Your task to perform on an android device: Open privacy settings Image 0: 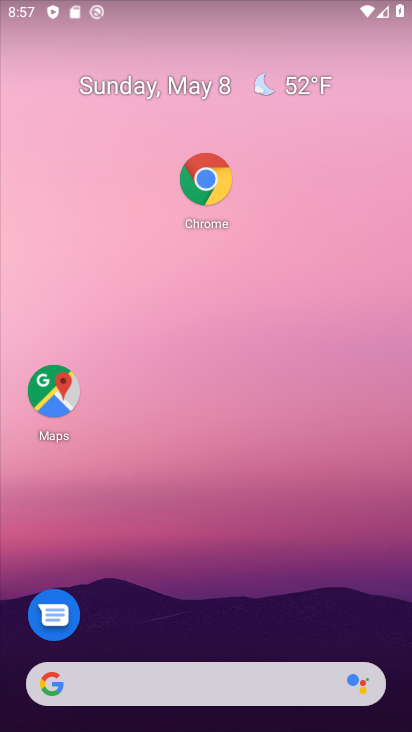
Step 0: drag from (193, 664) to (264, 236)
Your task to perform on an android device: Open privacy settings Image 1: 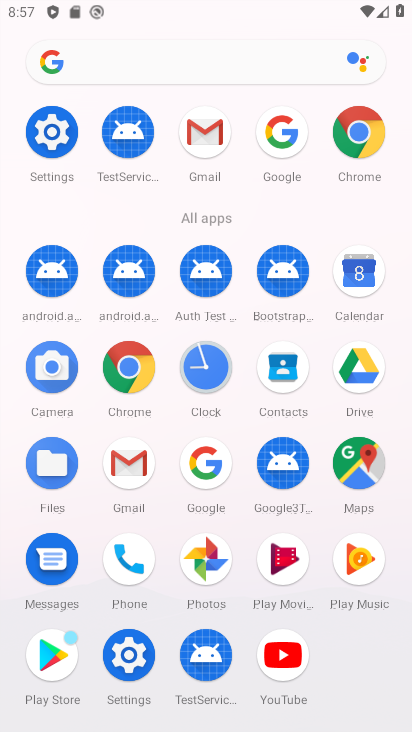
Step 1: click (132, 663)
Your task to perform on an android device: Open privacy settings Image 2: 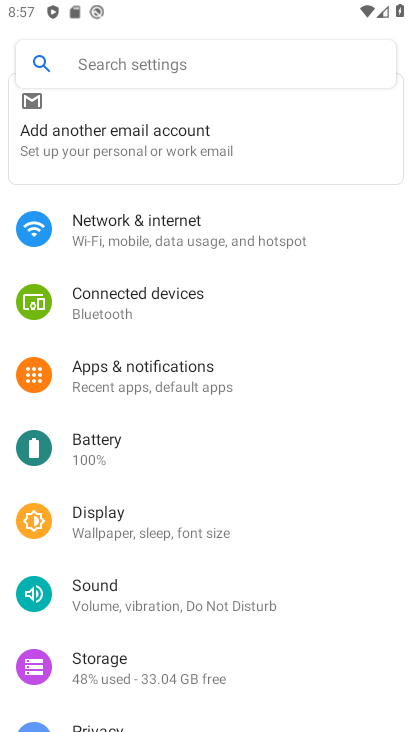
Step 2: drag from (133, 619) to (190, 245)
Your task to perform on an android device: Open privacy settings Image 3: 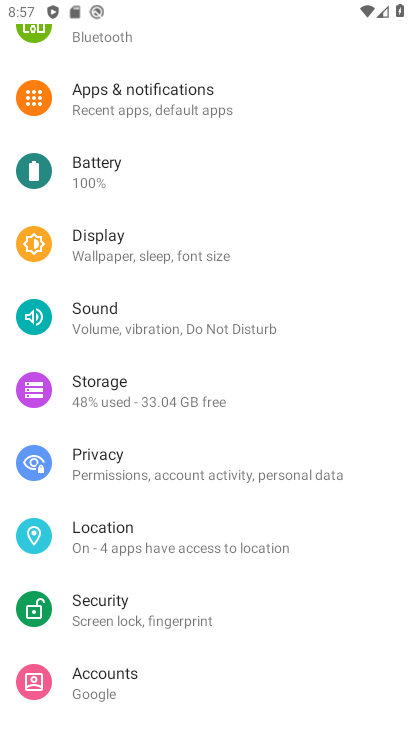
Step 3: drag from (112, 699) to (184, 364)
Your task to perform on an android device: Open privacy settings Image 4: 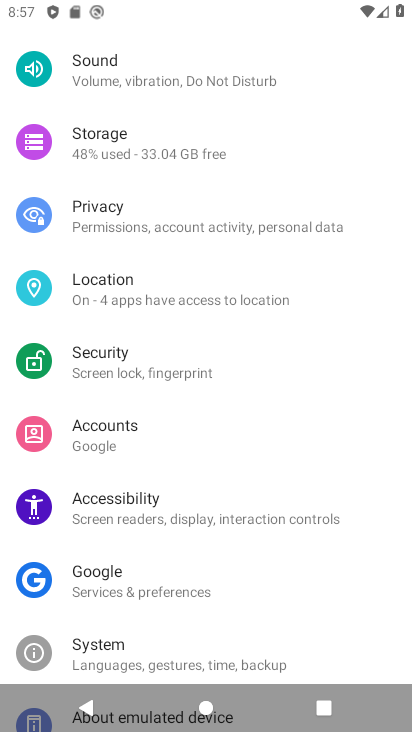
Step 4: drag from (103, 661) to (186, 320)
Your task to perform on an android device: Open privacy settings Image 5: 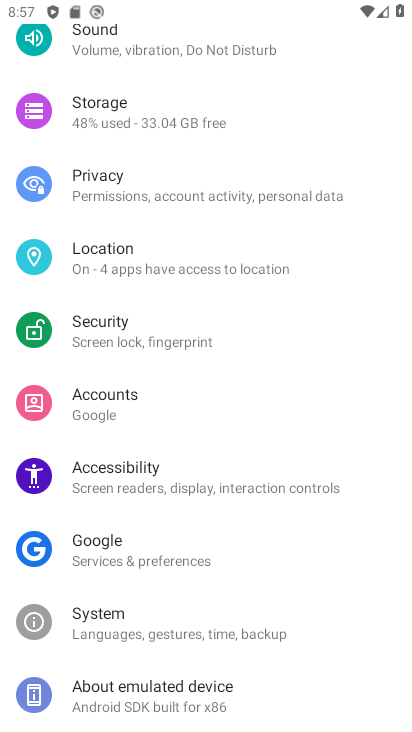
Step 5: click (121, 193)
Your task to perform on an android device: Open privacy settings Image 6: 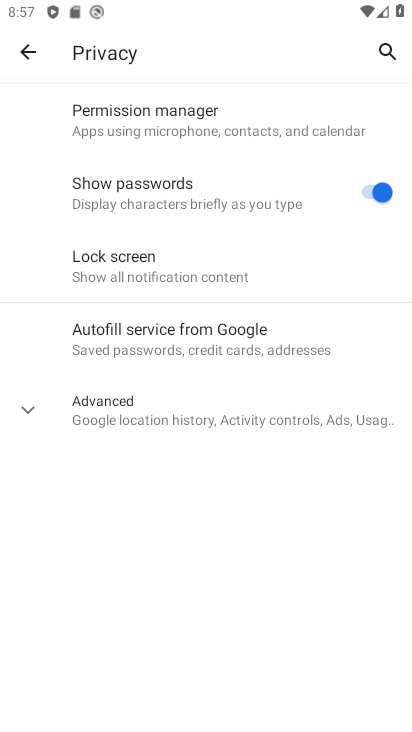
Step 6: click (133, 411)
Your task to perform on an android device: Open privacy settings Image 7: 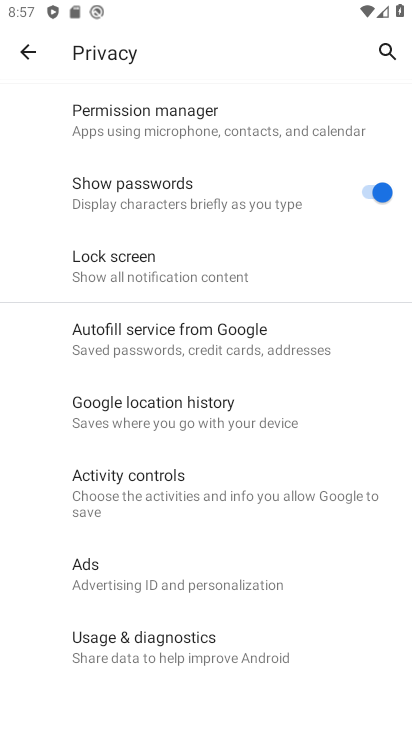
Step 7: task complete